Your task to perform on an android device: Open Reddit.com Image 0: 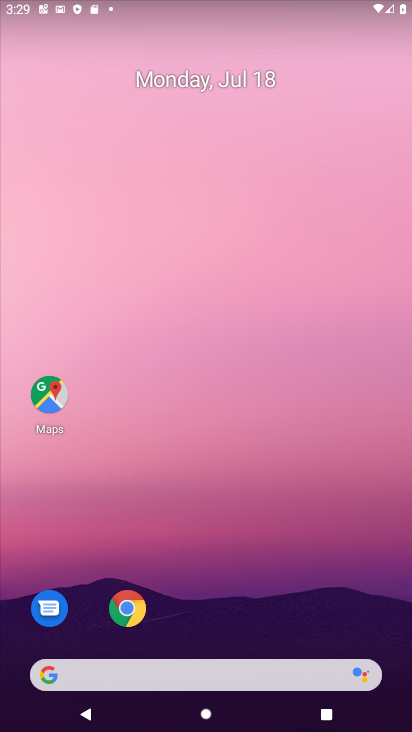
Step 0: drag from (140, 670) to (174, 221)
Your task to perform on an android device: Open Reddit.com Image 1: 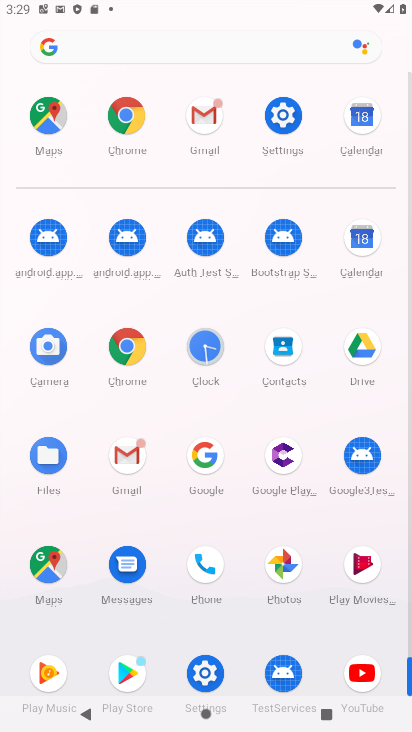
Step 1: click (128, 353)
Your task to perform on an android device: Open Reddit.com Image 2: 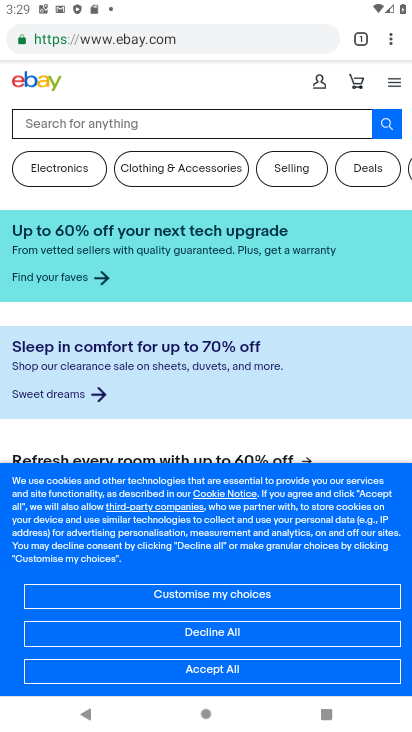
Step 2: click (198, 42)
Your task to perform on an android device: Open Reddit.com Image 3: 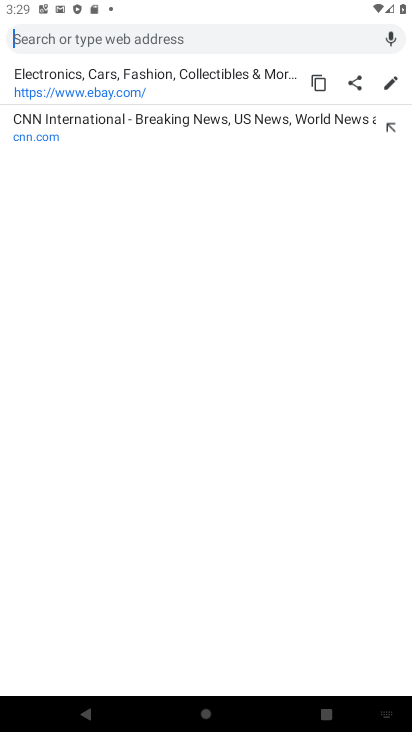
Step 3: type "reddit"
Your task to perform on an android device: Open Reddit.com Image 4: 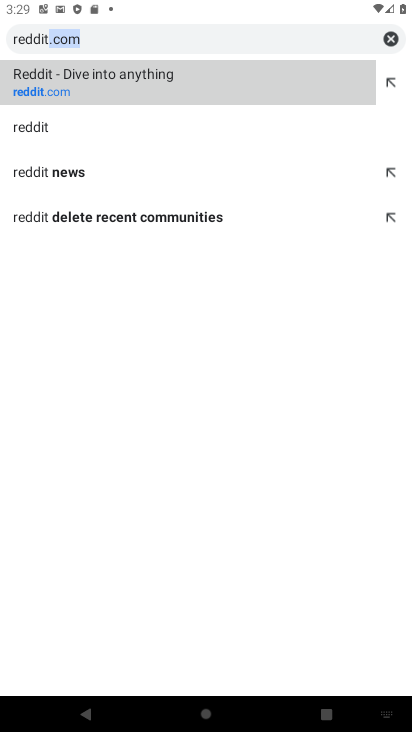
Step 4: click (108, 90)
Your task to perform on an android device: Open Reddit.com Image 5: 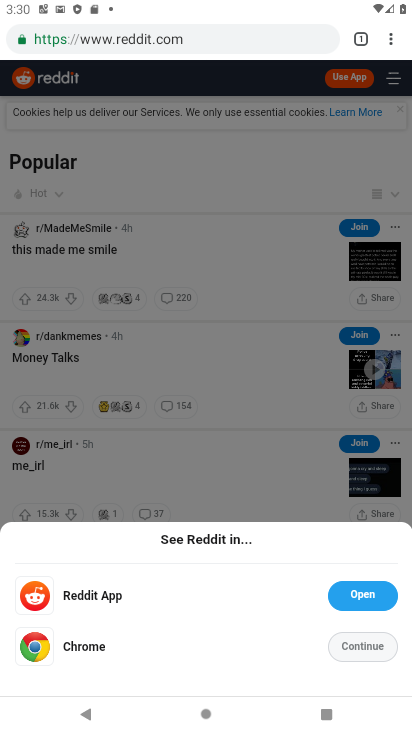
Step 5: task complete